Your task to perform on an android device: Open maps Image 0: 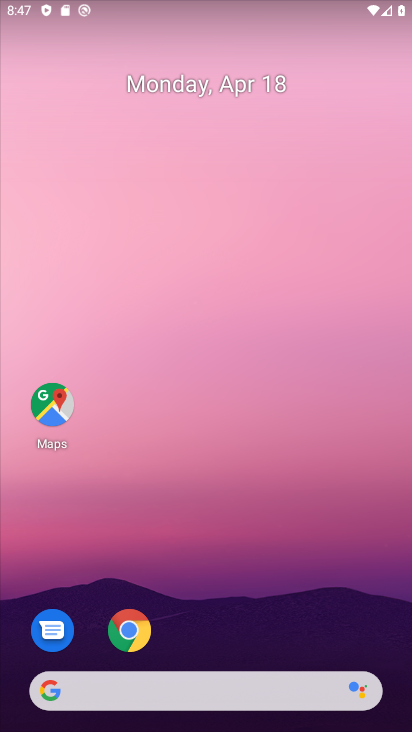
Step 0: click (55, 413)
Your task to perform on an android device: Open maps Image 1: 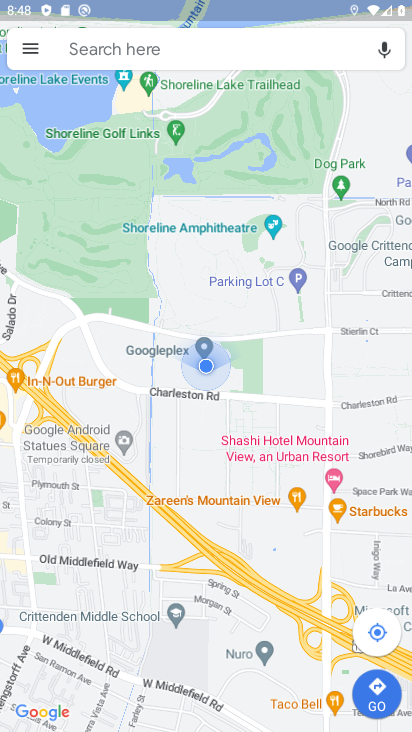
Step 1: task complete